Your task to perform on an android device: open the mobile data screen to see how much data has been used Image 0: 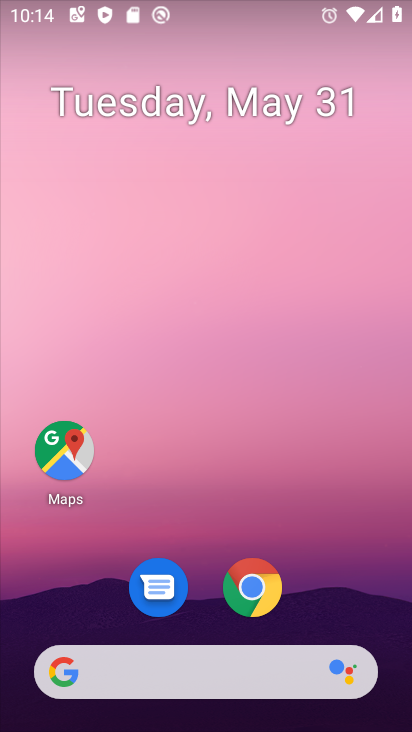
Step 0: drag from (363, 602) to (370, 281)
Your task to perform on an android device: open the mobile data screen to see how much data has been used Image 1: 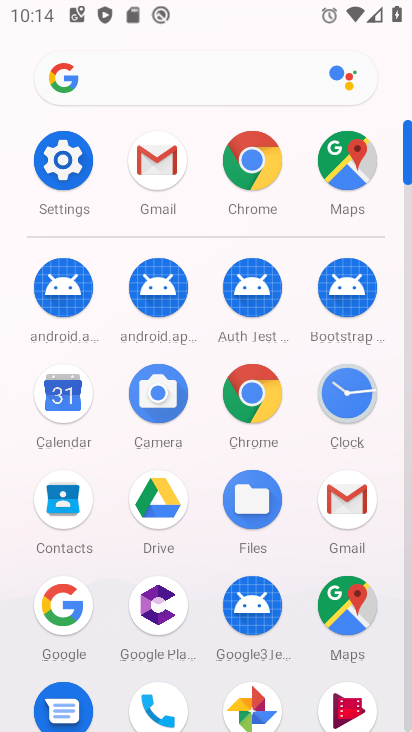
Step 1: click (70, 180)
Your task to perform on an android device: open the mobile data screen to see how much data has been used Image 2: 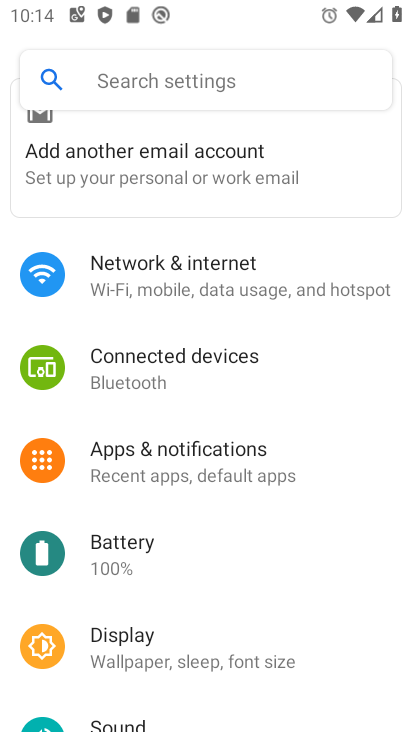
Step 2: drag from (335, 336) to (349, 426)
Your task to perform on an android device: open the mobile data screen to see how much data has been used Image 3: 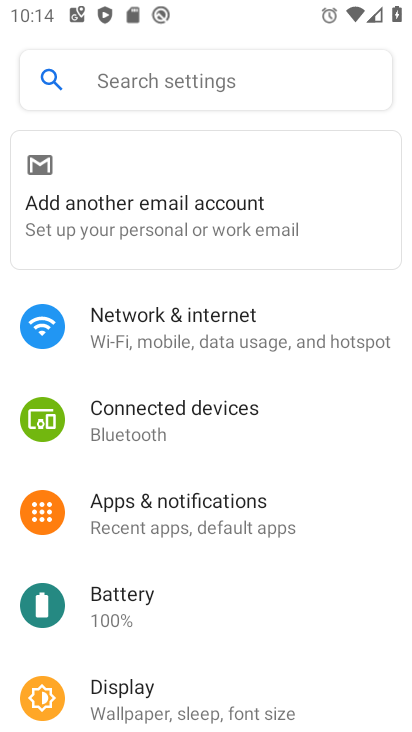
Step 3: click (305, 338)
Your task to perform on an android device: open the mobile data screen to see how much data has been used Image 4: 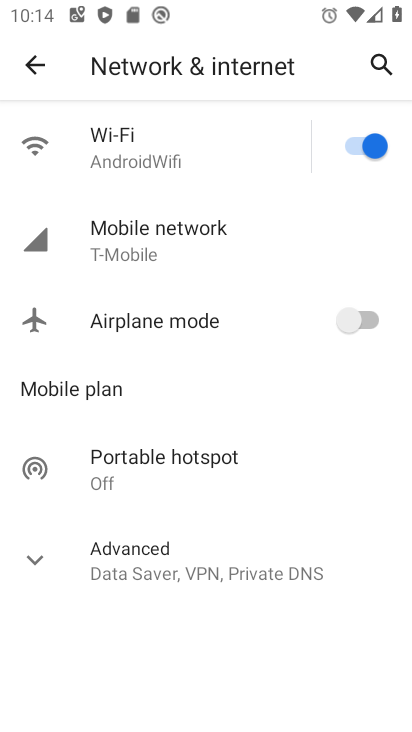
Step 4: click (223, 263)
Your task to perform on an android device: open the mobile data screen to see how much data has been used Image 5: 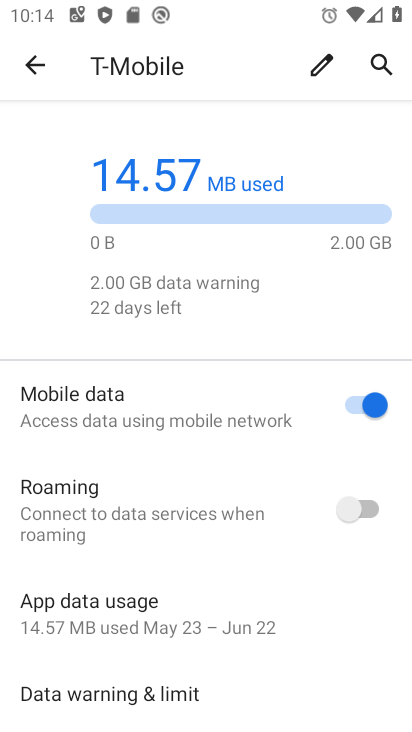
Step 5: drag from (286, 457) to (291, 367)
Your task to perform on an android device: open the mobile data screen to see how much data has been used Image 6: 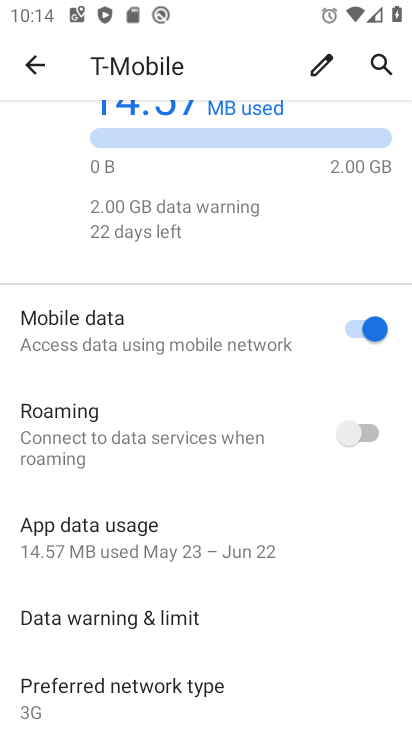
Step 6: drag from (302, 484) to (292, 385)
Your task to perform on an android device: open the mobile data screen to see how much data has been used Image 7: 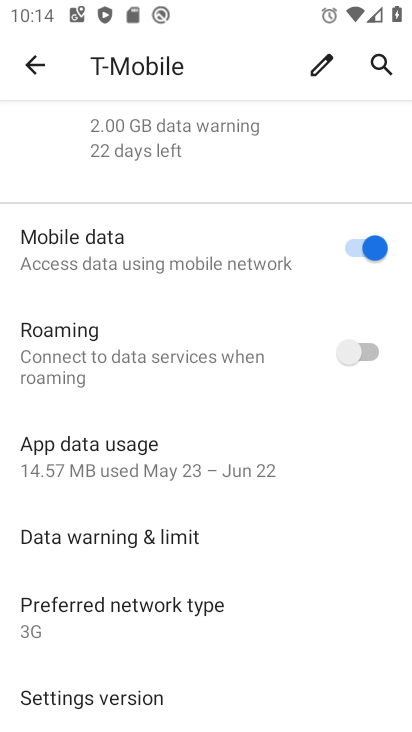
Step 7: drag from (298, 498) to (292, 353)
Your task to perform on an android device: open the mobile data screen to see how much data has been used Image 8: 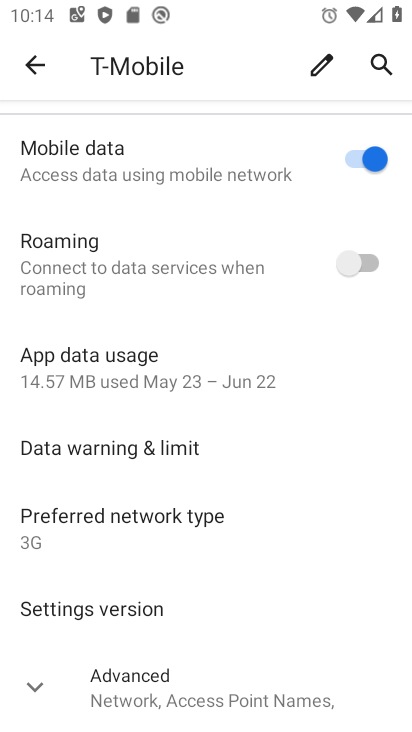
Step 8: click (216, 367)
Your task to perform on an android device: open the mobile data screen to see how much data has been used Image 9: 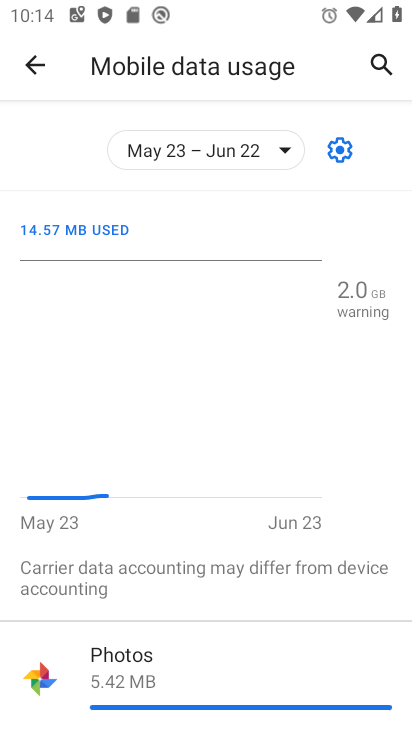
Step 9: task complete